Your task to perform on an android device: find snoozed emails in the gmail app Image 0: 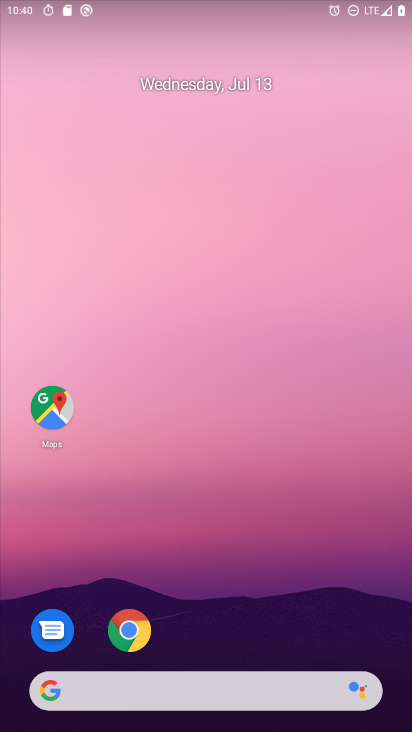
Step 0: drag from (369, 567) to (291, 42)
Your task to perform on an android device: find snoozed emails in the gmail app Image 1: 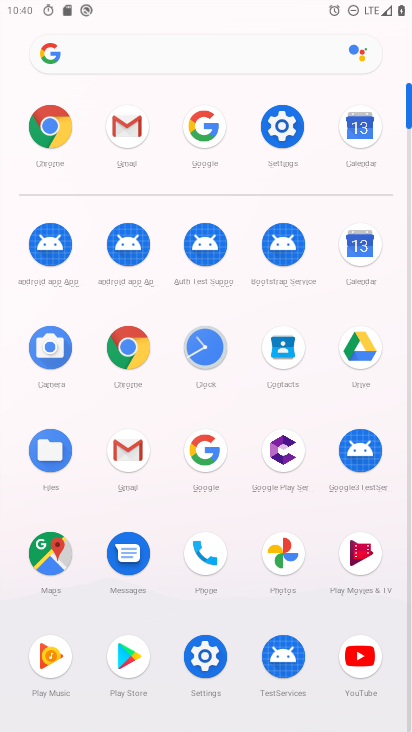
Step 1: click (126, 460)
Your task to perform on an android device: find snoozed emails in the gmail app Image 2: 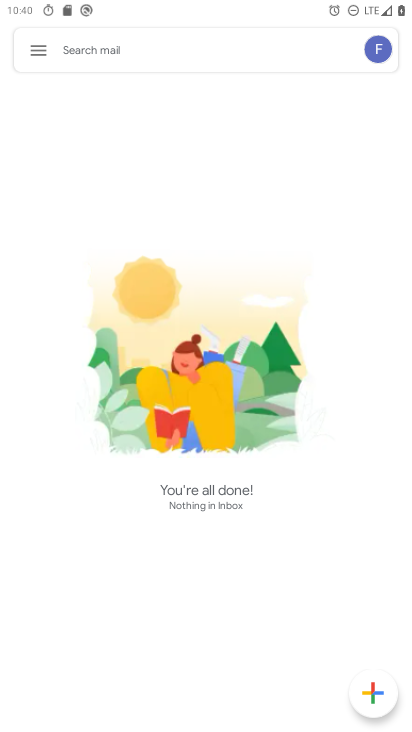
Step 2: click (29, 51)
Your task to perform on an android device: find snoozed emails in the gmail app Image 3: 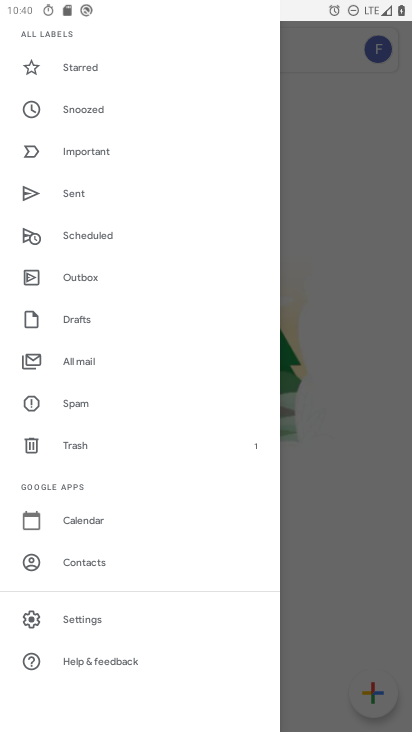
Step 3: click (69, 110)
Your task to perform on an android device: find snoozed emails in the gmail app Image 4: 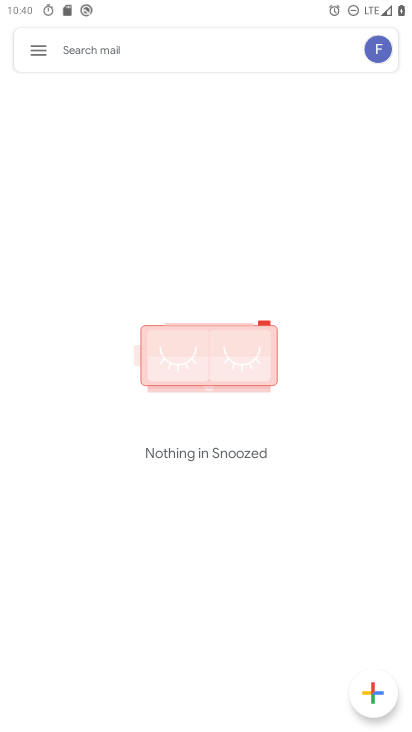
Step 4: task complete